Your task to perform on an android device: set an alarm Image 0: 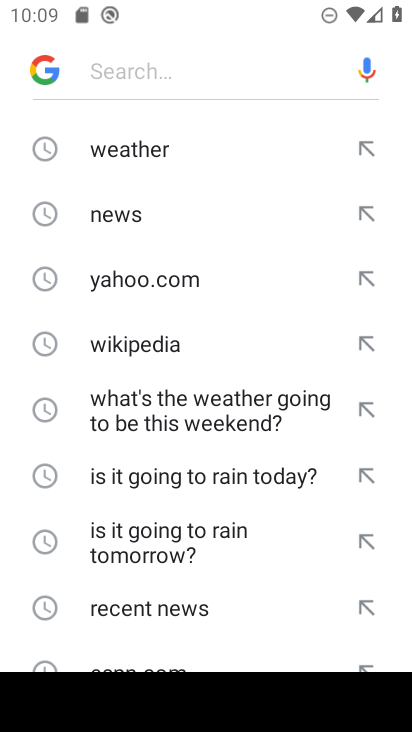
Step 0: press home button
Your task to perform on an android device: set an alarm Image 1: 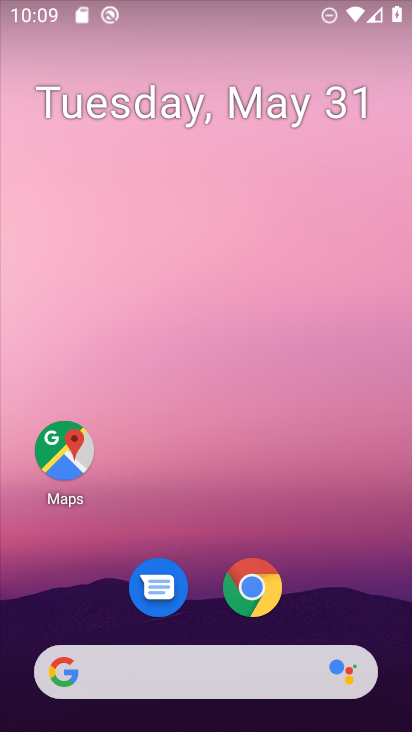
Step 1: drag from (210, 623) to (208, 2)
Your task to perform on an android device: set an alarm Image 2: 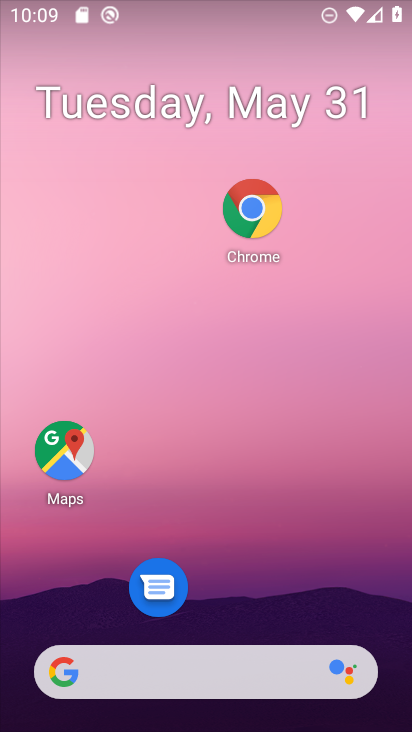
Step 2: drag from (315, 618) to (330, 8)
Your task to perform on an android device: set an alarm Image 3: 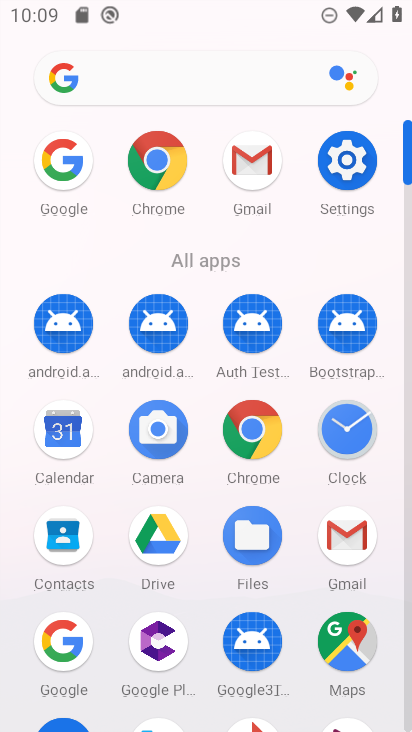
Step 3: click (343, 421)
Your task to perform on an android device: set an alarm Image 4: 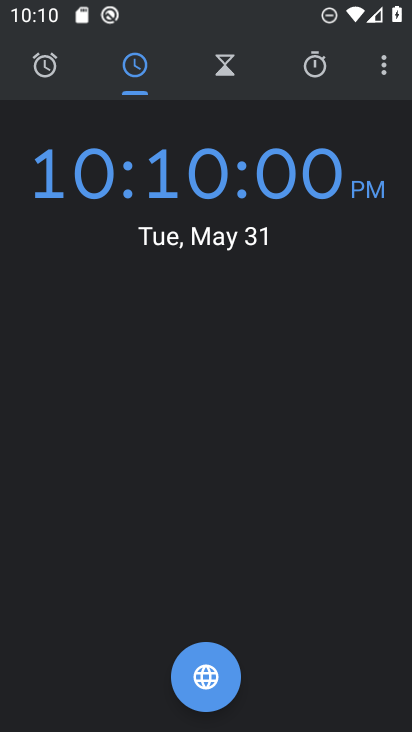
Step 4: click (42, 64)
Your task to perform on an android device: set an alarm Image 5: 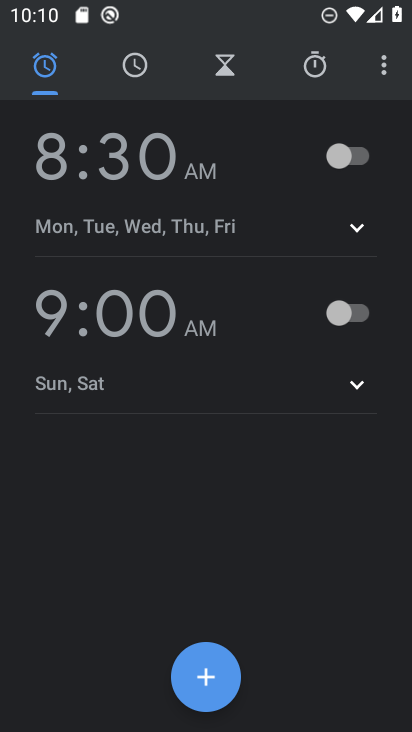
Step 5: click (349, 157)
Your task to perform on an android device: set an alarm Image 6: 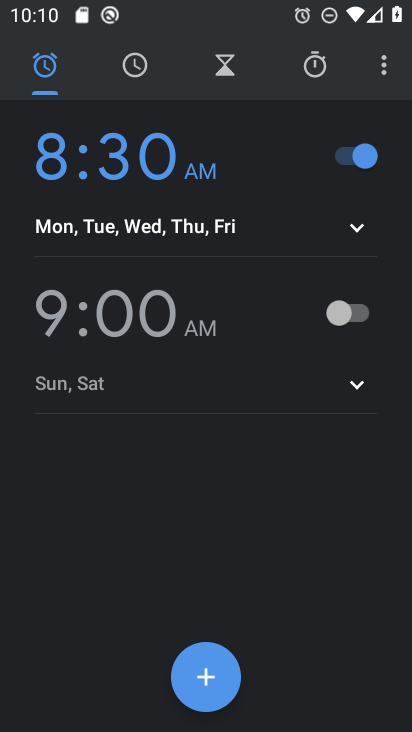
Step 6: task complete